Your task to perform on an android device: Go to CNN.com Image 0: 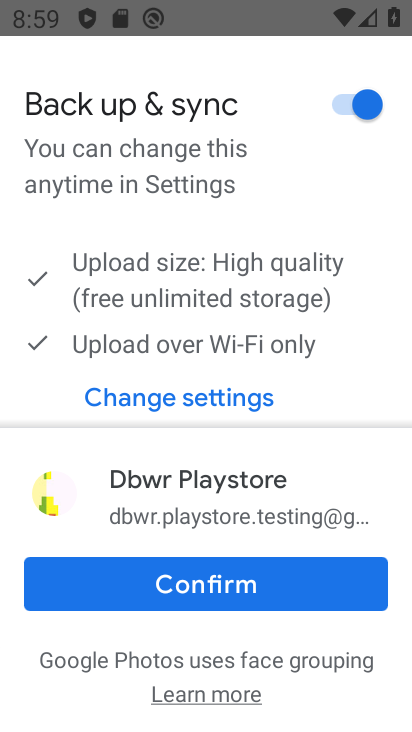
Step 0: press home button
Your task to perform on an android device: Go to CNN.com Image 1: 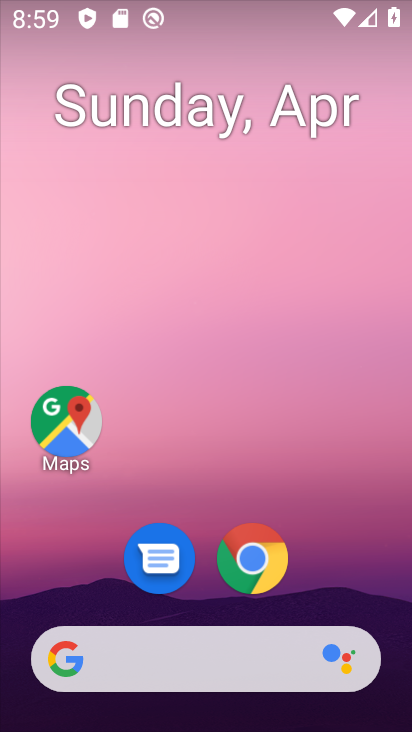
Step 1: drag from (355, 576) to (356, 55)
Your task to perform on an android device: Go to CNN.com Image 2: 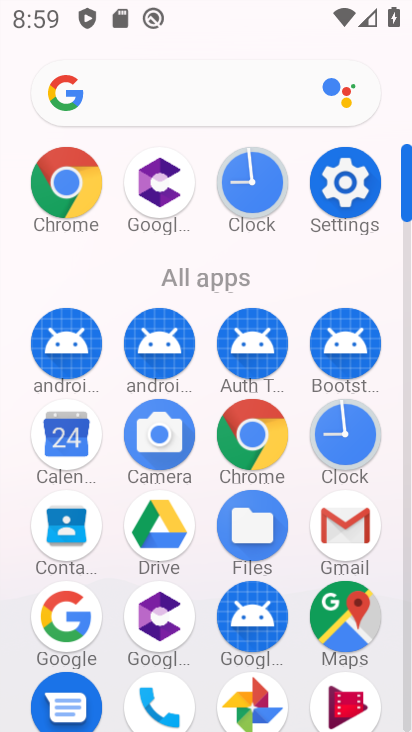
Step 2: click (268, 440)
Your task to perform on an android device: Go to CNN.com Image 3: 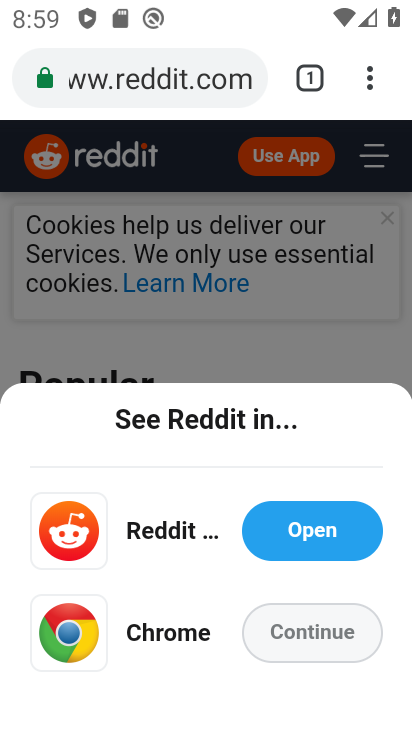
Step 3: press back button
Your task to perform on an android device: Go to CNN.com Image 4: 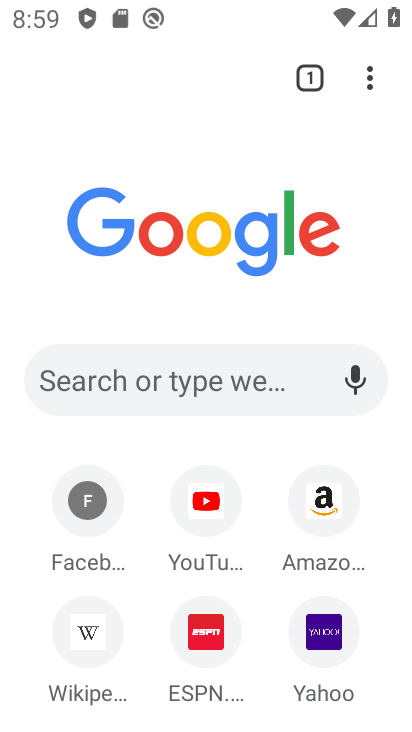
Step 4: click (246, 374)
Your task to perform on an android device: Go to CNN.com Image 5: 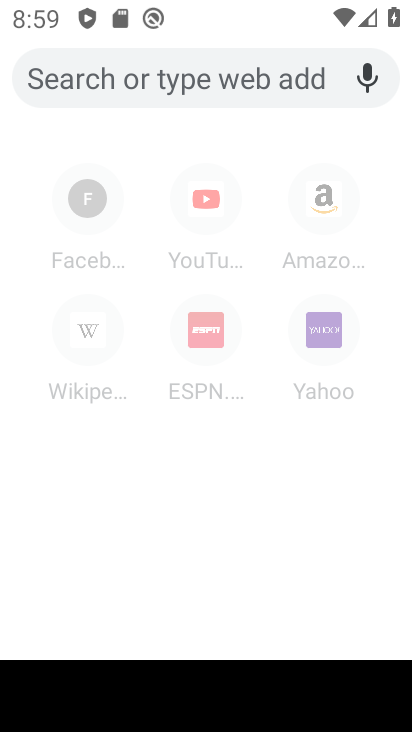
Step 5: type "cnn.com"
Your task to perform on an android device: Go to CNN.com Image 6: 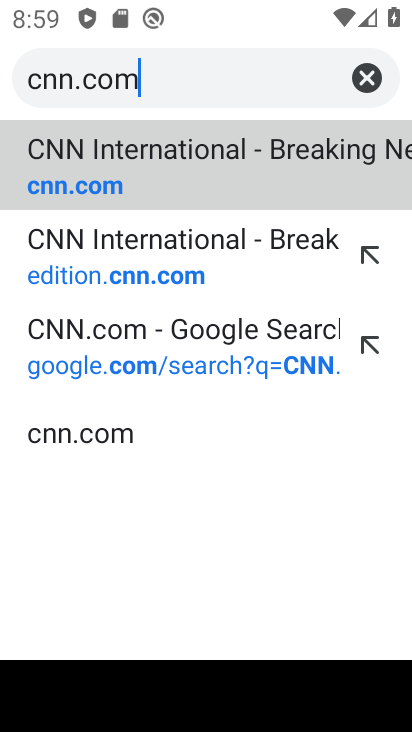
Step 6: click (213, 152)
Your task to perform on an android device: Go to CNN.com Image 7: 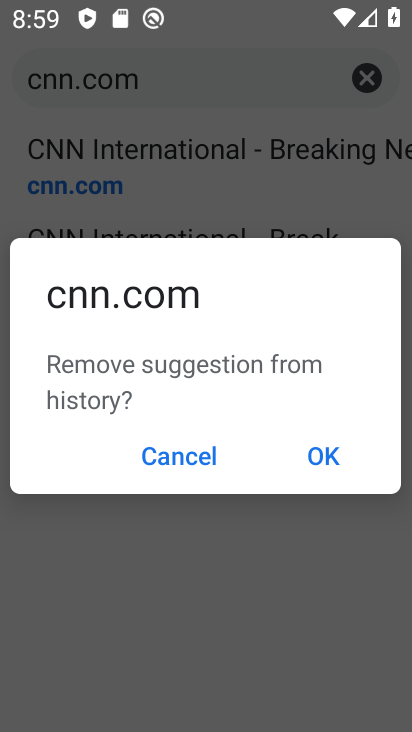
Step 7: click (194, 456)
Your task to perform on an android device: Go to CNN.com Image 8: 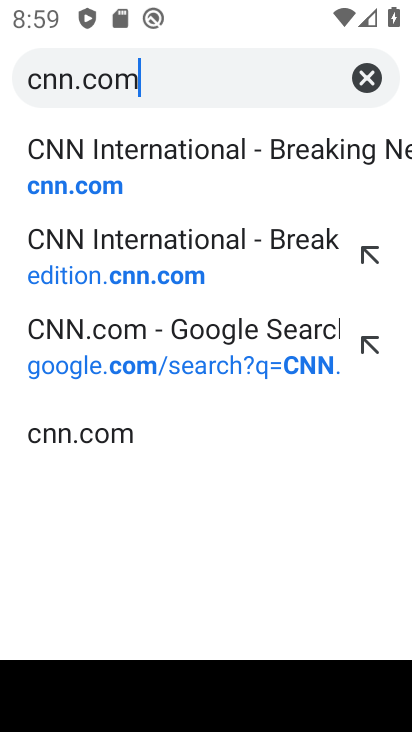
Step 8: click (123, 444)
Your task to perform on an android device: Go to CNN.com Image 9: 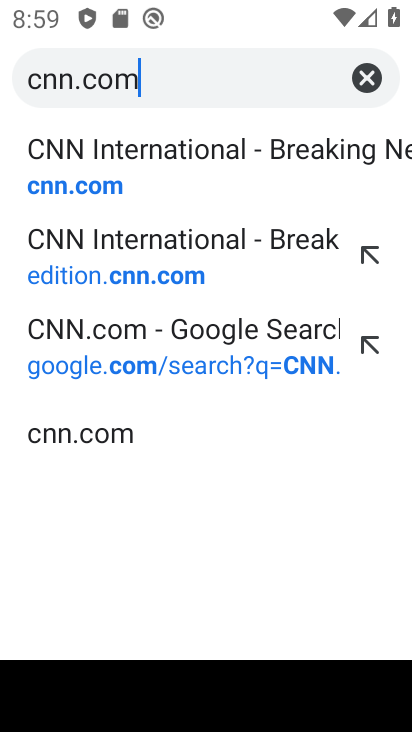
Step 9: click (171, 263)
Your task to perform on an android device: Go to CNN.com Image 10: 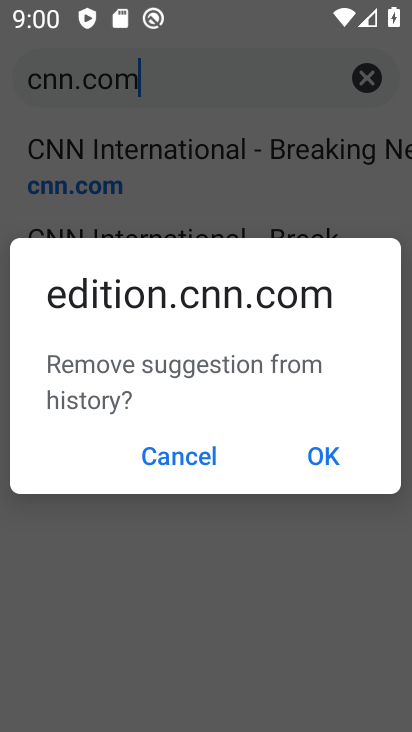
Step 10: click (157, 464)
Your task to perform on an android device: Go to CNN.com Image 11: 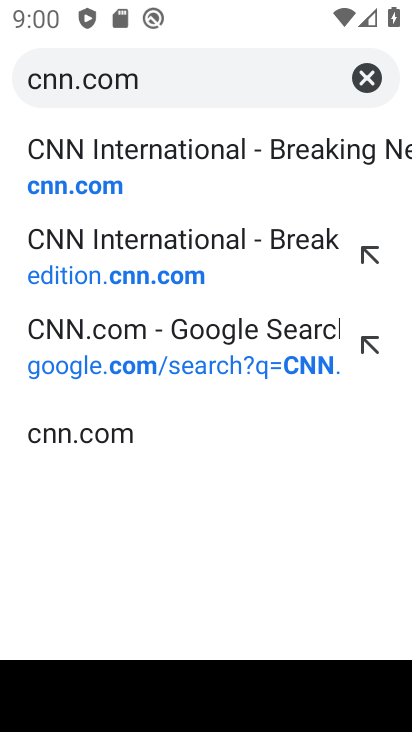
Step 11: click (154, 360)
Your task to perform on an android device: Go to CNN.com Image 12: 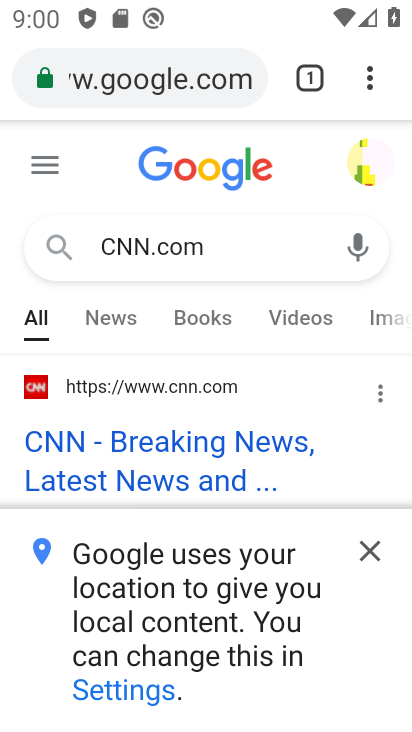
Step 12: task complete